Your task to perform on an android device: Search for "bose soundlink" on ebay, select the first entry, and add it to the cart. Image 0: 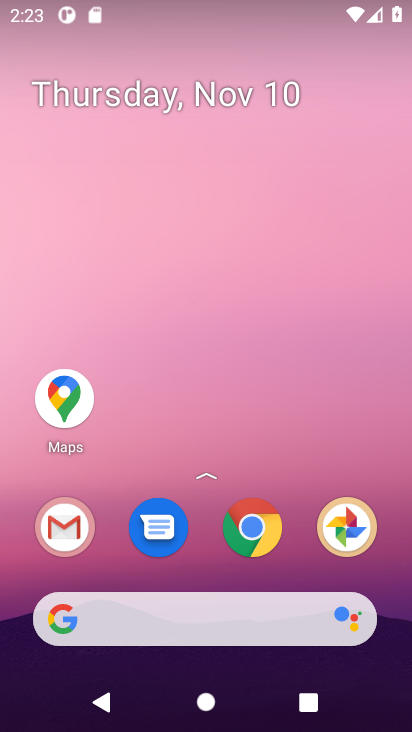
Step 0: drag from (165, 551) to (339, 120)
Your task to perform on an android device: Search for "bose soundlink" on ebay, select the first entry, and add it to the cart. Image 1: 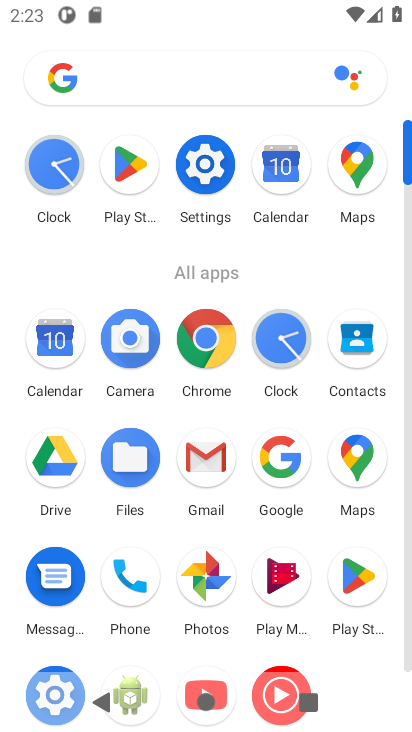
Step 1: click (205, 352)
Your task to perform on an android device: Search for "bose soundlink" on ebay, select the first entry, and add it to the cart. Image 2: 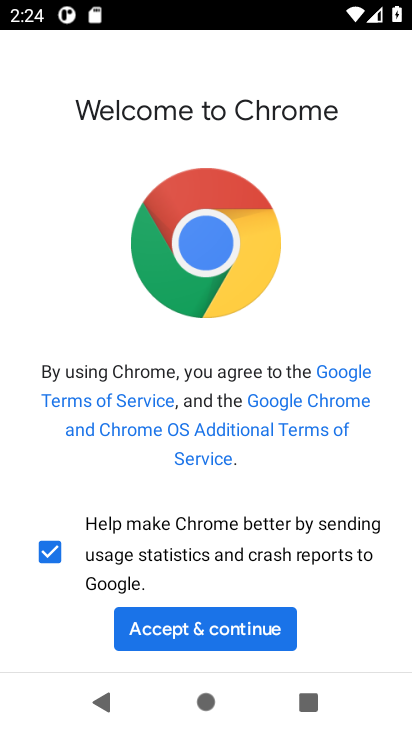
Step 2: click (231, 623)
Your task to perform on an android device: Search for "bose soundlink" on ebay, select the first entry, and add it to the cart. Image 3: 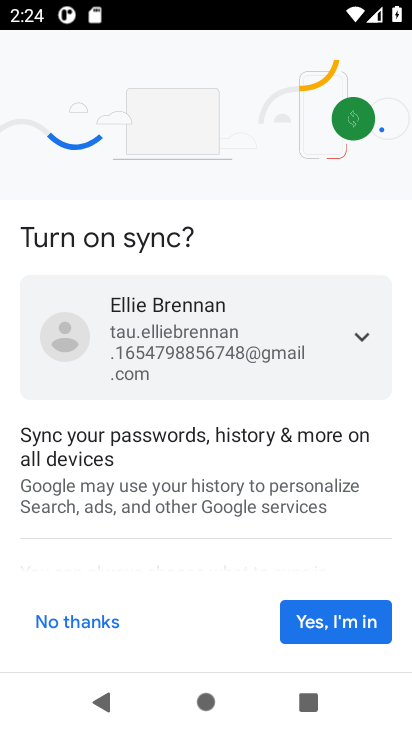
Step 3: click (321, 609)
Your task to perform on an android device: Search for "bose soundlink" on ebay, select the first entry, and add it to the cart. Image 4: 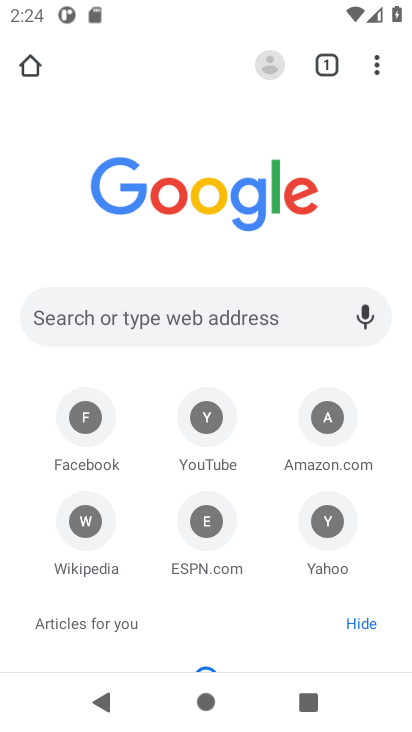
Step 4: click (236, 303)
Your task to perform on an android device: Search for "bose soundlink" on ebay, select the first entry, and add it to the cart. Image 5: 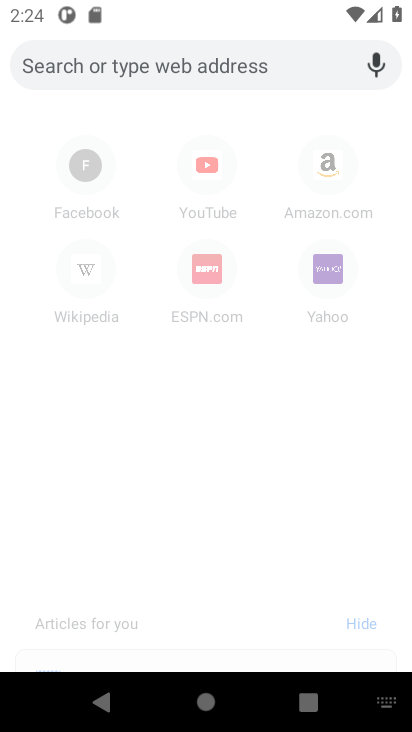
Step 5: click (125, 507)
Your task to perform on an android device: Search for "bose soundlink" on ebay, select the first entry, and add it to the cart. Image 6: 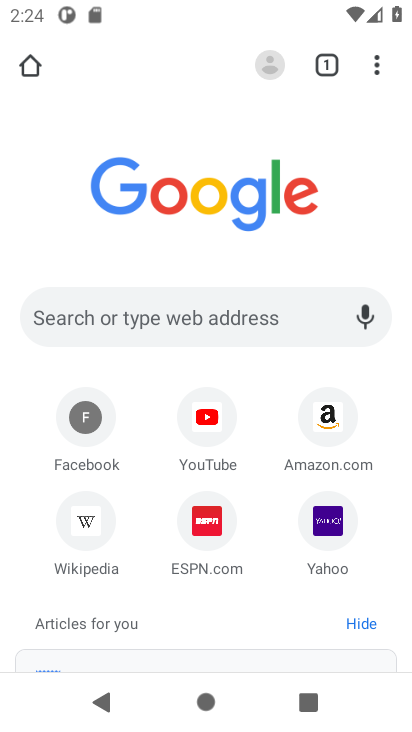
Step 6: press enter
Your task to perform on an android device: Search for "bose soundlink" on ebay, select the first entry, and add it to the cart. Image 7: 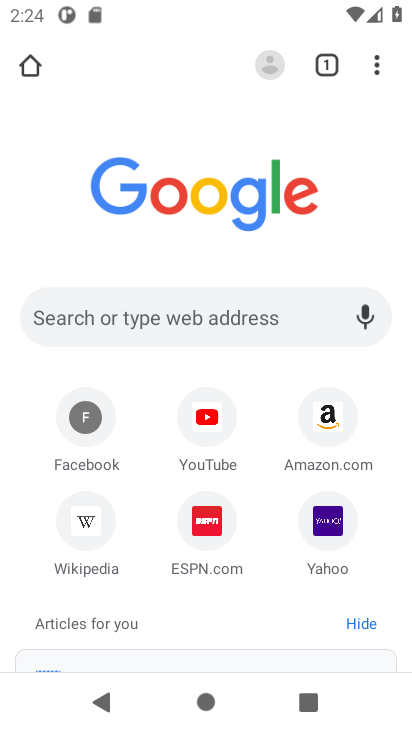
Step 7: type "bose soundlink"
Your task to perform on an android device: Search for "bose soundlink" on ebay, select the first entry, and add it to the cart. Image 8: 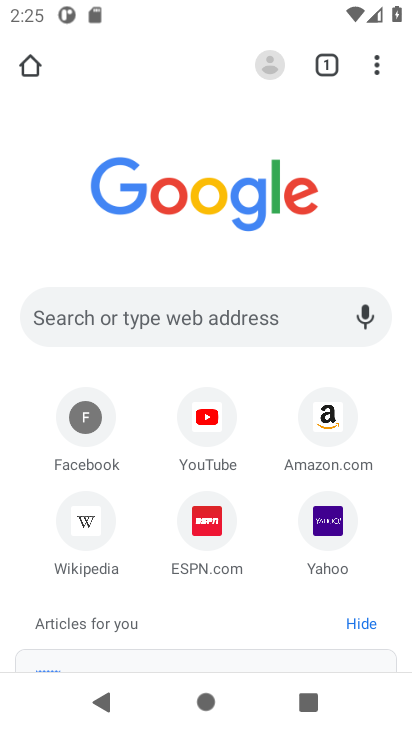
Step 8: click (181, 321)
Your task to perform on an android device: Search for "bose soundlink" on ebay, select the first entry, and add it to the cart. Image 9: 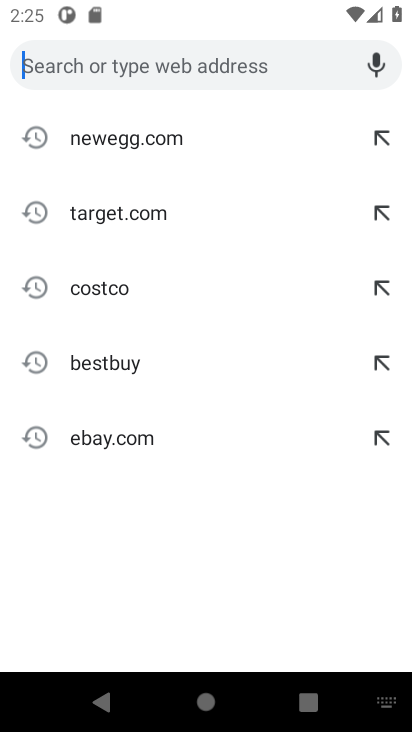
Step 9: type "ebay"
Your task to perform on an android device: Search for "bose soundlink" on ebay, select the first entry, and add it to the cart. Image 10: 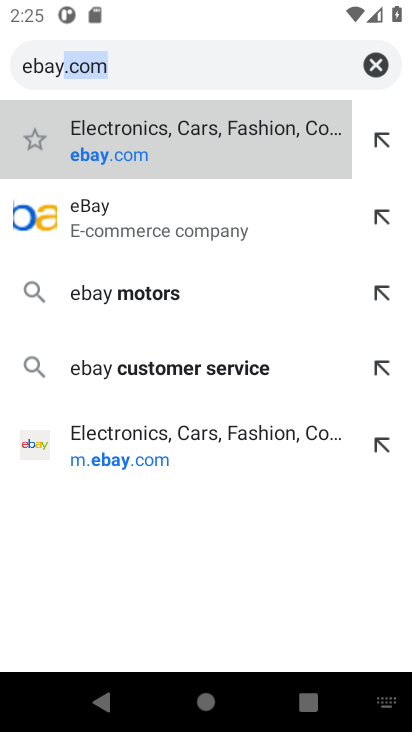
Step 10: press enter
Your task to perform on an android device: Search for "bose soundlink" on ebay, select the first entry, and add it to the cart. Image 11: 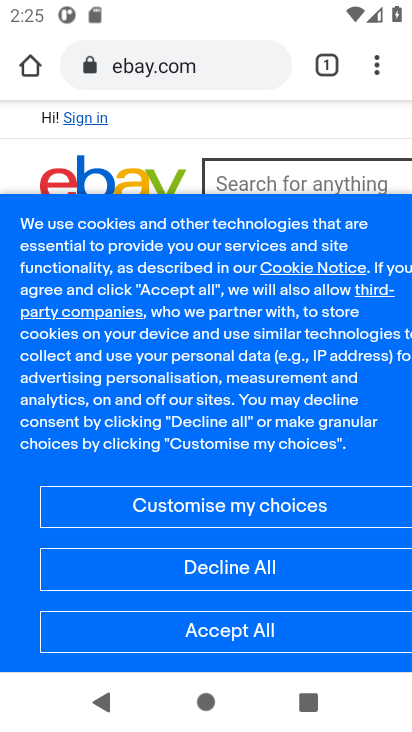
Step 11: click (229, 627)
Your task to perform on an android device: Search for "bose soundlink" on ebay, select the first entry, and add it to the cart. Image 12: 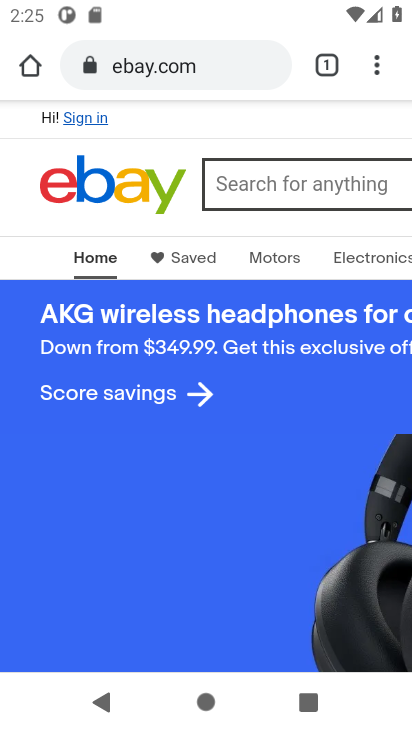
Step 12: click (276, 179)
Your task to perform on an android device: Search for "bose soundlink" on ebay, select the first entry, and add it to the cart. Image 13: 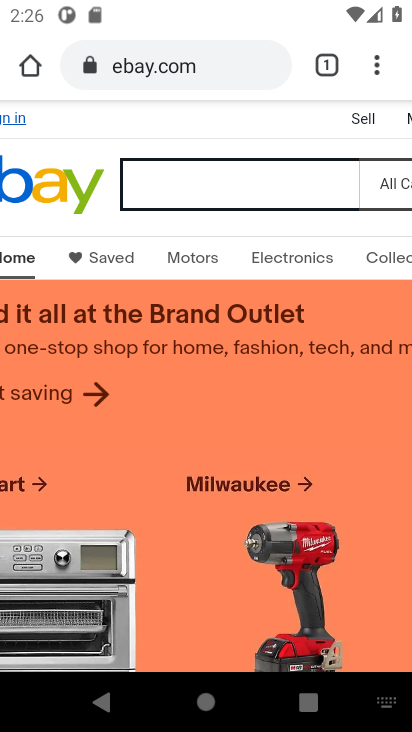
Step 13: click (172, 489)
Your task to perform on an android device: Search for "bose soundlink" on ebay, select the first entry, and add it to the cart. Image 14: 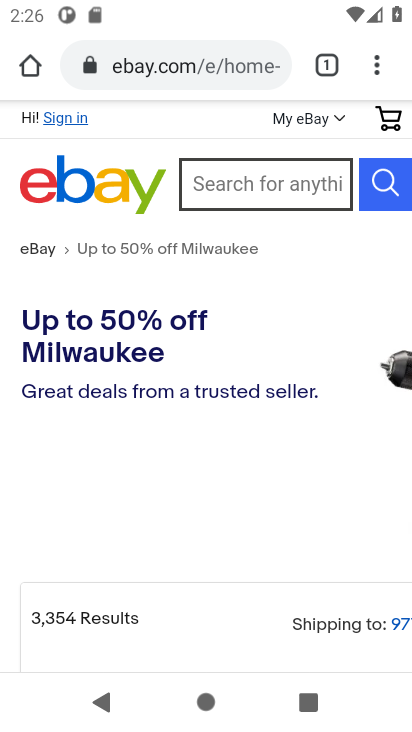
Step 14: click (255, 193)
Your task to perform on an android device: Search for "bose soundlink" on ebay, select the first entry, and add it to the cart. Image 15: 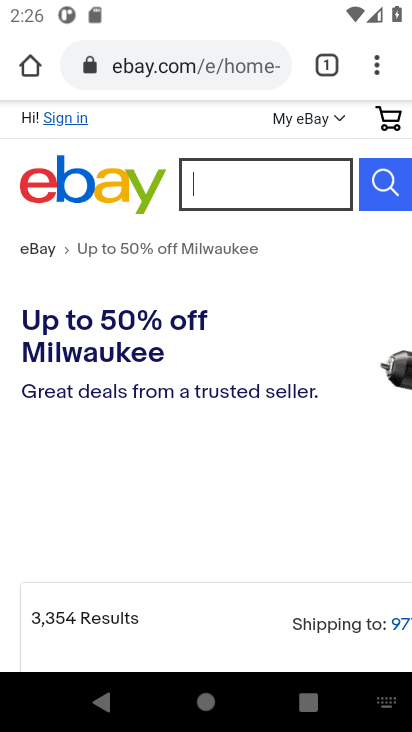
Step 15: type "bose soundlink"
Your task to perform on an android device: Search for "bose soundlink" on ebay, select the first entry, and add it to the cart. Image 16: 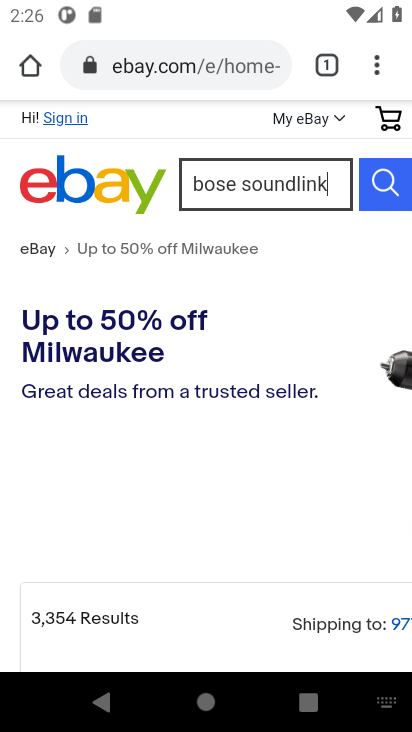
Step 16: press enter
Your task to perform on an android device: Search for "bose soundlink" on ebay, select the first entry, and add it to the cart. Image 17: 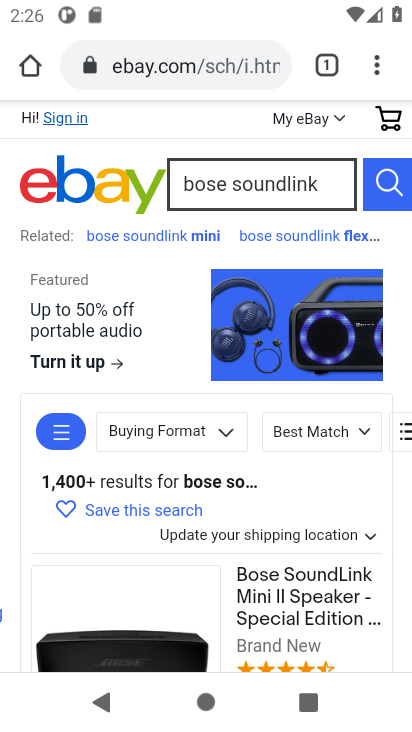
Step 17: drag from (213, 396) to (277, 84)
Your task to perform on an android device: Search for "bose soundlink" on ebay, select the first entry, and add it to the cart. Image 18: 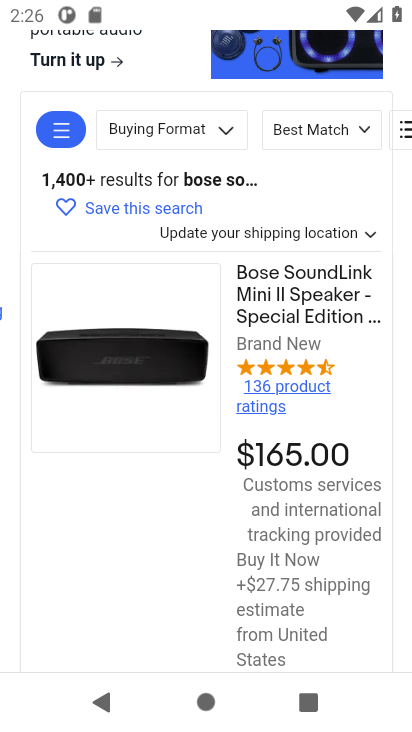
Step 18: click (325, 291)
Your task to perform on an android device: Search for "bose soundlink" on ebay, select the first entry, and add it to the cart. Image 19: 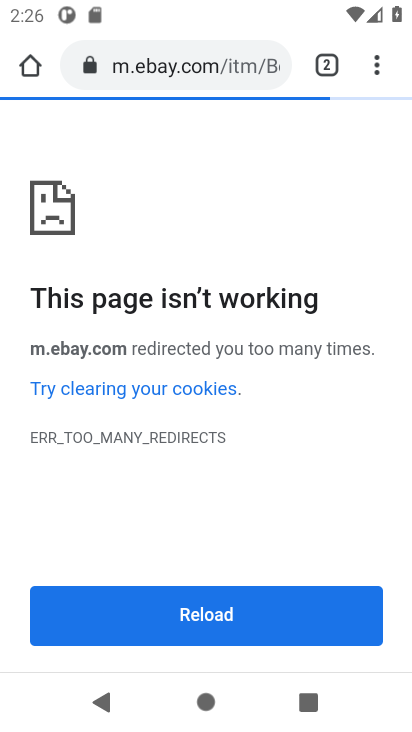
Step 19: click (240, 623)
Your task to perform on an android device: Search for "bose soundlink" on ebay, select the first entry, and add it to the cart. Image 20: 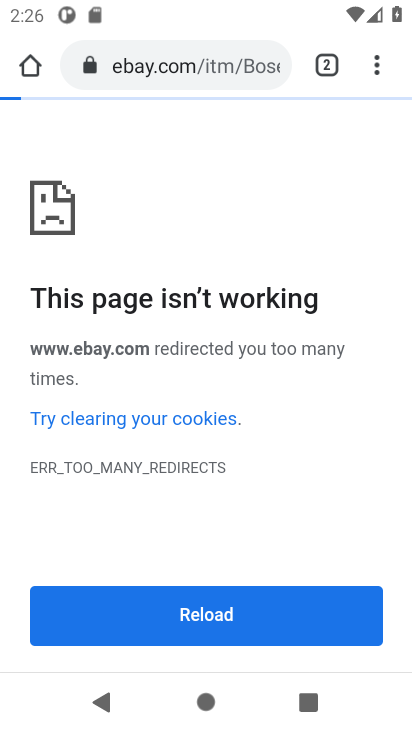
Step 20: click (240, 621)
Your task to perform on an android device: Search for "bose soundlink" on ebay, select the first entry, and add it to the cart. Image 21: 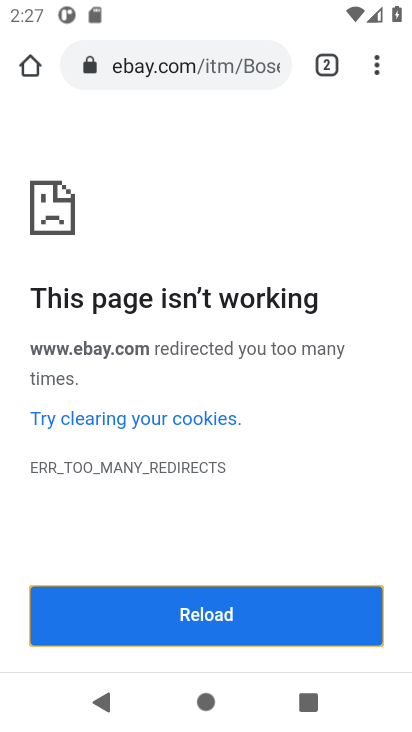
Step 21: click (240, 621)
Your task to perform on an android device: Search for "bose soundlink" on ebay, select the first entry, and add it to the cart. Image 22: 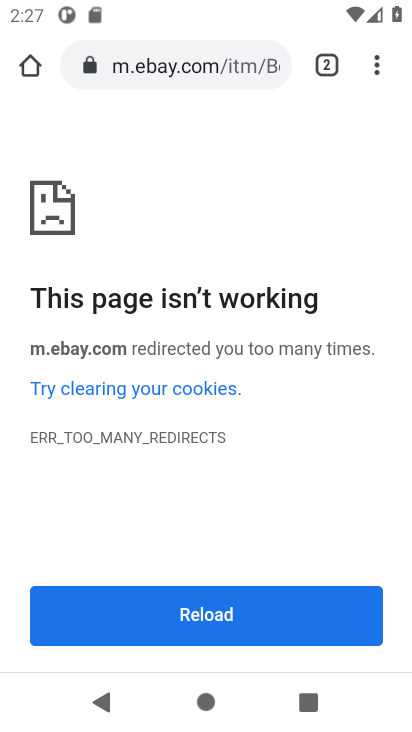
Step 22: task complete